Your task to perform on an android device: turn pop-ups on in chrome Image 0: 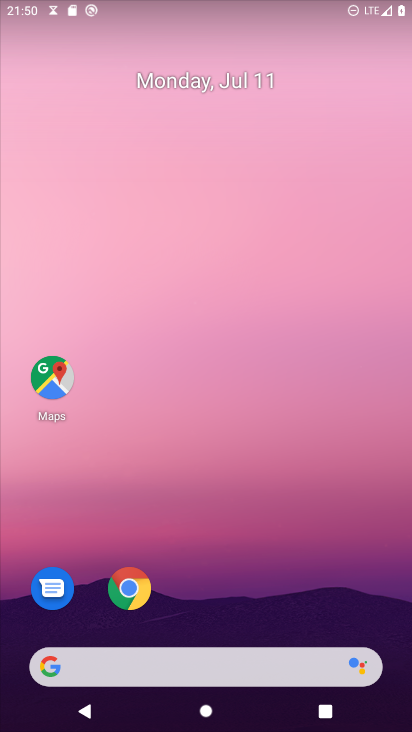
Step 0: press home button
Your task to perform on an android device: turn pop-ups on in chrome Image 1: 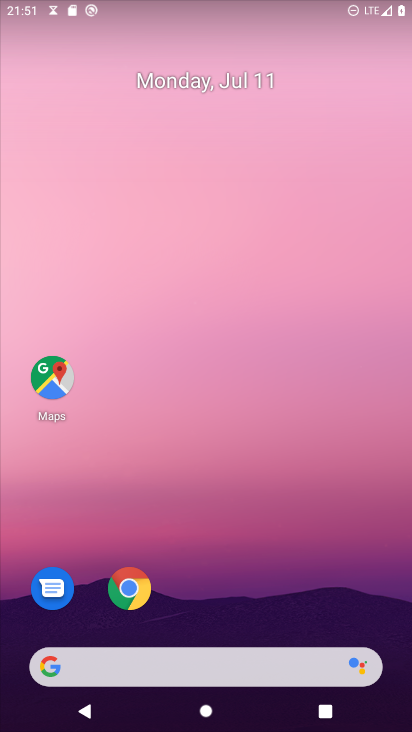
Step 1: drag from (216, 512) to (144, 204)
Your task to perform on an android device: turn pop-ups on in chrome Image 2: 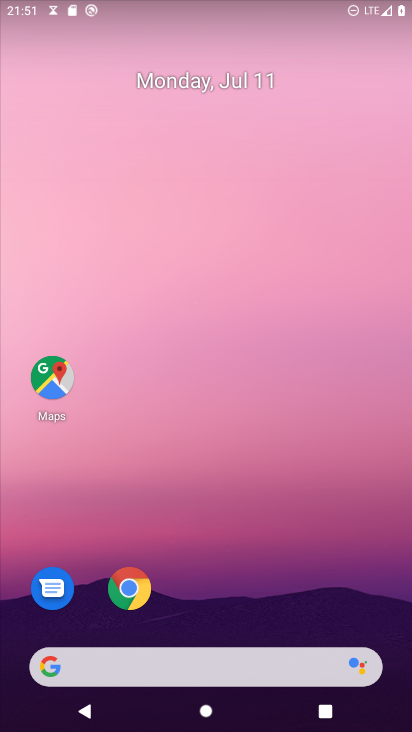
Step 2: drag from (227, 570) to (87, 54)
Your task to perform on an android device: turn pop-ups on in chrome Image 3: 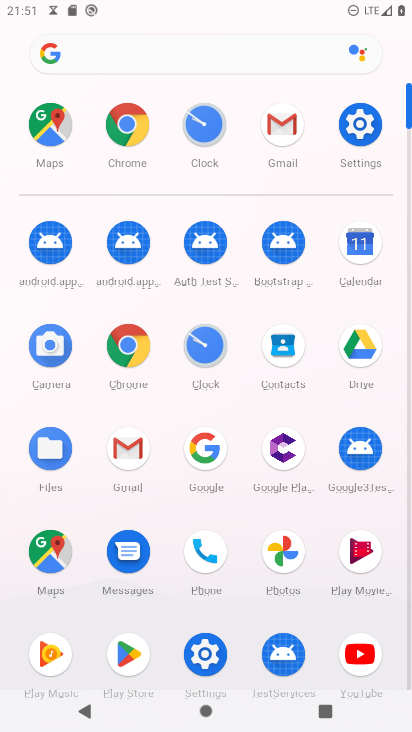
Step 3: click (129, 124)
Your task to perform on an android device: turn pop-ups on in chrome Image 4: 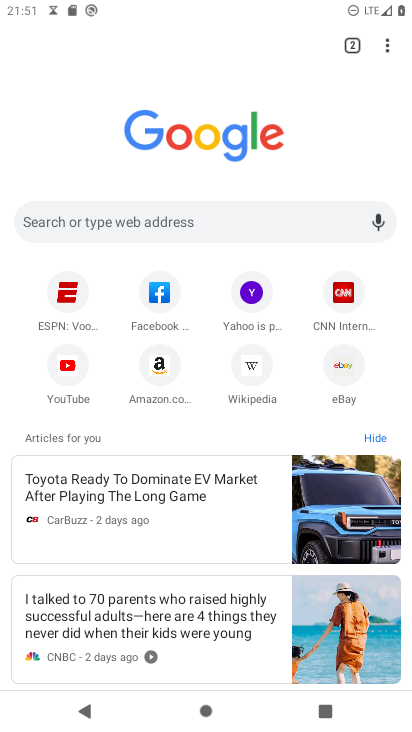
Step 4: drag from (386, 43) to (235, 374)
Your task to perform on an android device: turn pop-ups on in chrome Image 5: 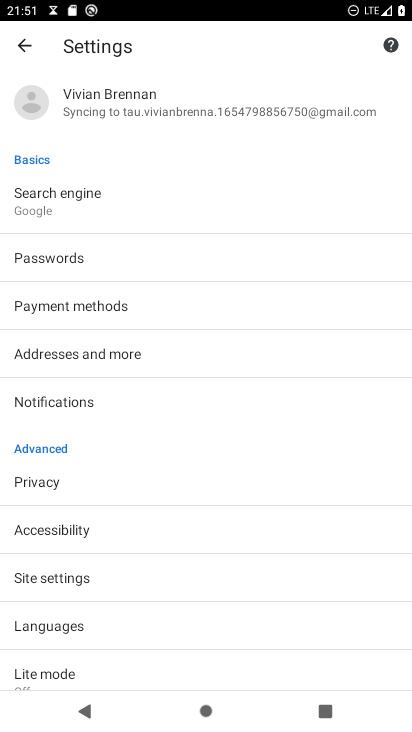
Step 5: click (42, 578)
Your task to perform on an android device: turn pop-ups on in chrome Image 6: 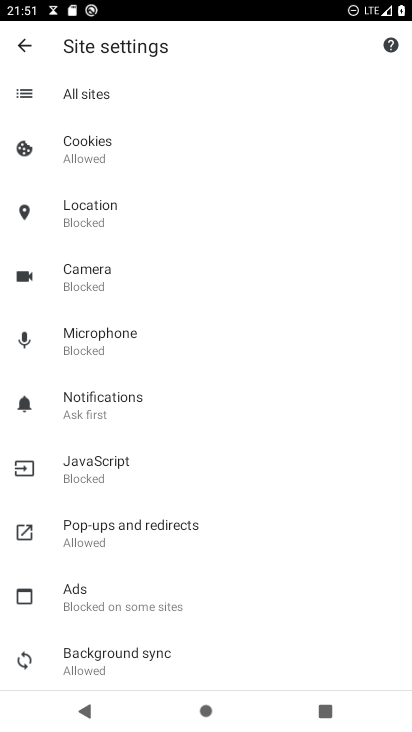
Step 6: click (96, 530)
Your task to perform on an android device: turn pop-ups on in chrome Image 7: 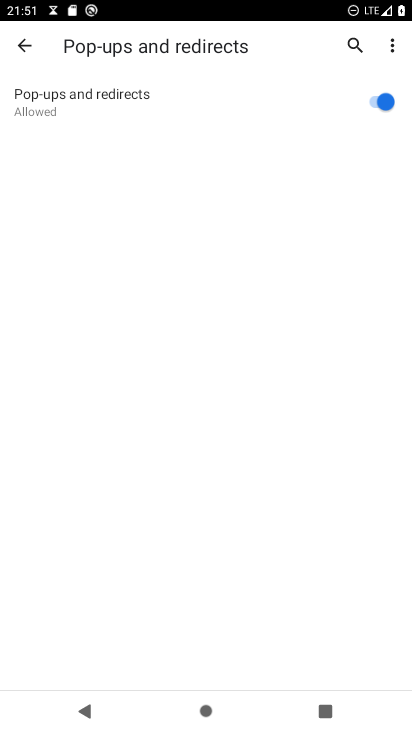
Step 7: task complete